Your task to perform on an android device: uninstall "Reddit" Image 0: 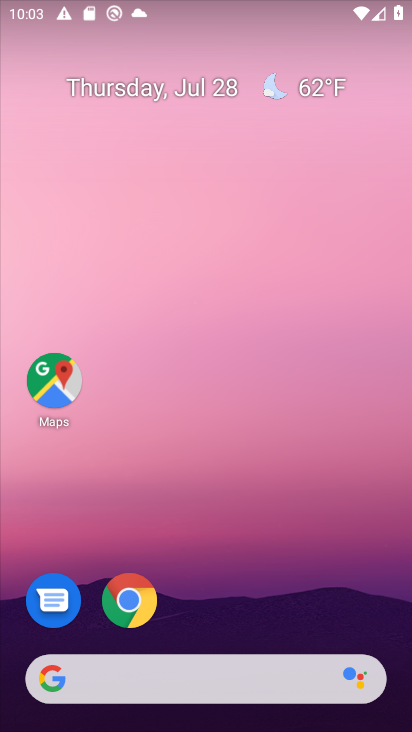
Step 0: click (228, 644)
Your task to perform on an android device: uninstall "Reddit" Image 1: 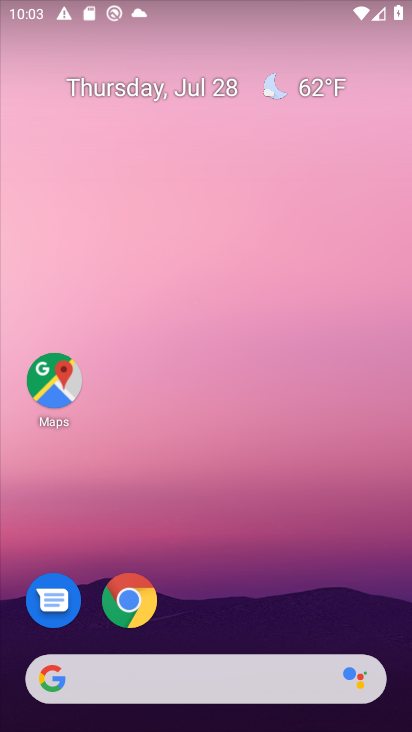
Step 1: drag from (219, 649) to (231, 0)
Your task to perform on an android device: uninstall "Reddit" Image 2: 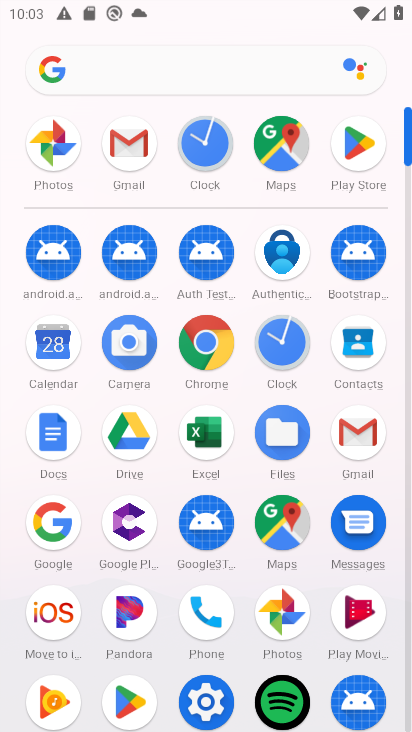
Step 2: click (352, 157)
Your task to perform on an android device: uninstall "Reddit" Image 3: 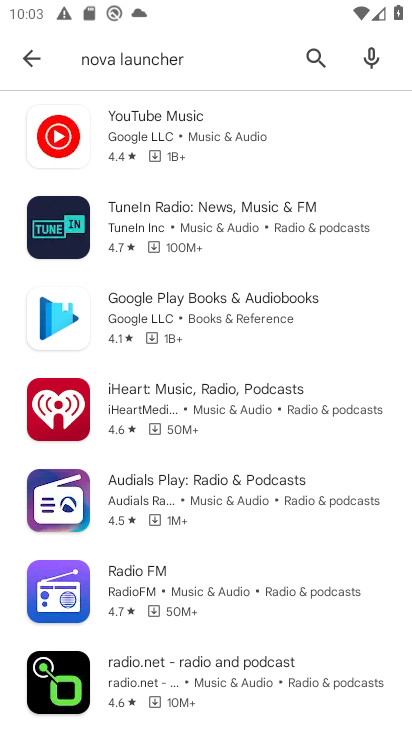
Step 3: click (309, 56)
Your task to perform on an android device: uninstall "Reddit" Image 4: 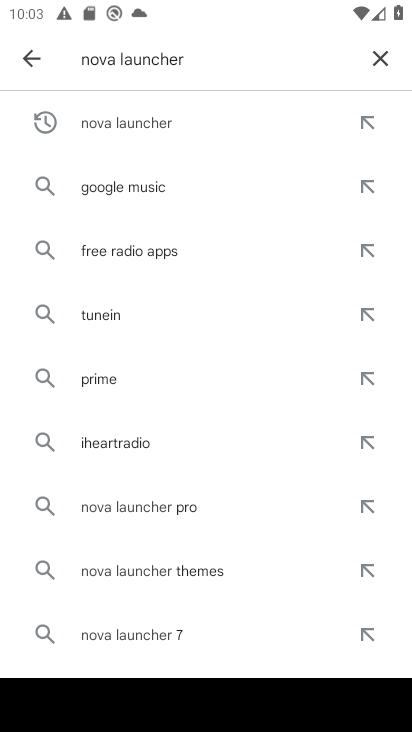
Step 4: click (373, 63)
Your task to perform on an android device: uninstall "Reddit" Image 5: 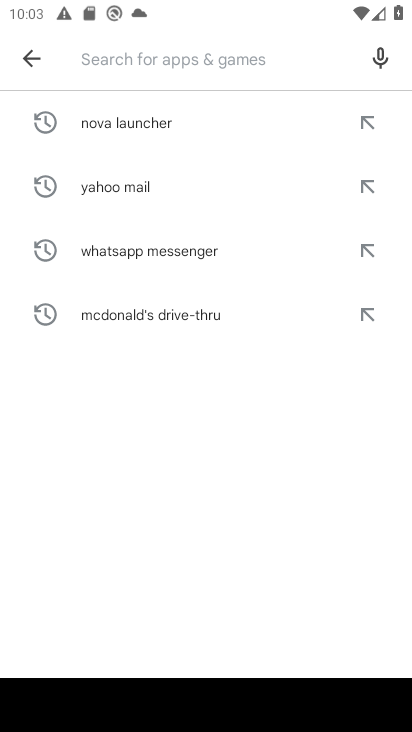
Step 5: type "Reddit"
Your task to perform on an android device: uninstall "Reddit" Image 6: 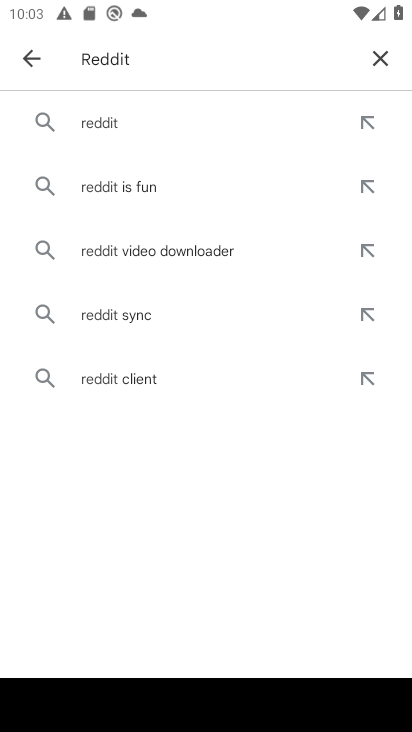
Step 6: click (91, 131)
Your task to perform on an android device: uninstall "Reddit" Image 7: 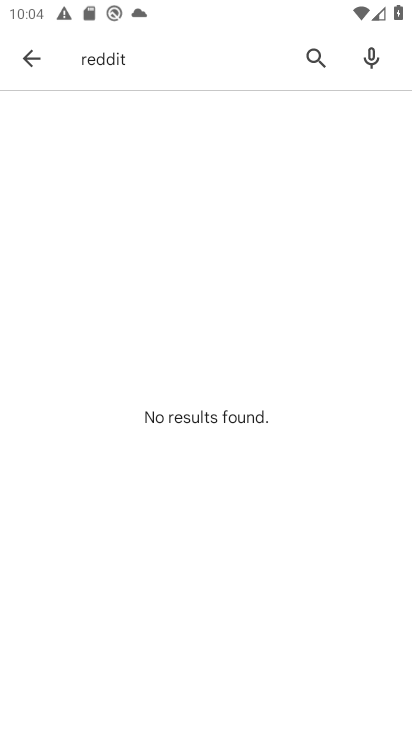
Step 7: task complete